Your task to perform on an android device: Go to wifi settings Image 0: 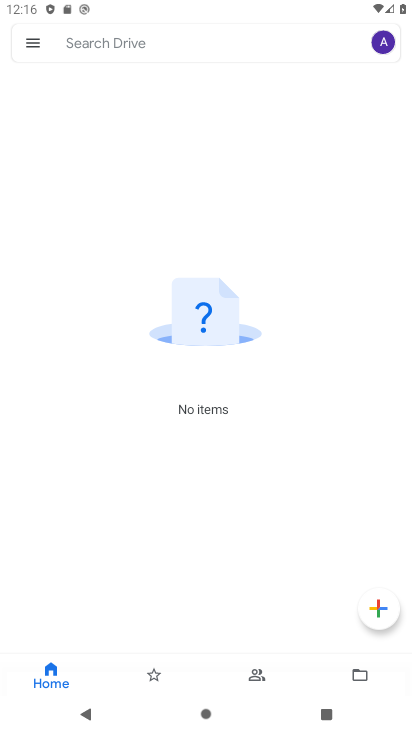
Step 0: press home button
Your task to perform on an android device: Go to wifi settings Image 1: 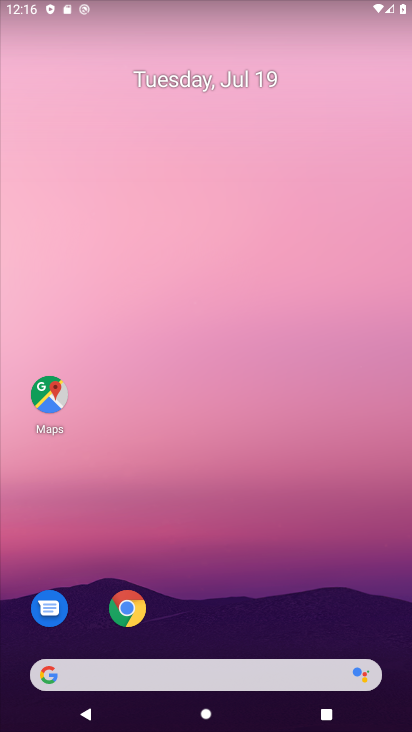
Step 1: drag from (218, 493) to (255, 270)
Your task to perform on an android device: Go to wifi settings Image 2: 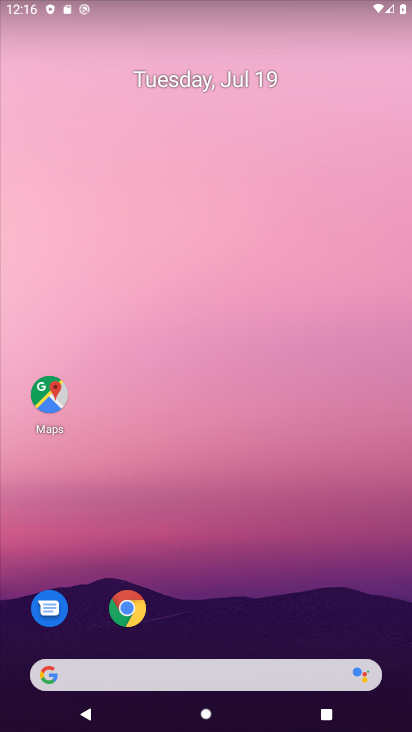
Step 2: drag from (205, 489) to (281, 143)
Your task to perform on an android device: Go to wifi settings Image 3: 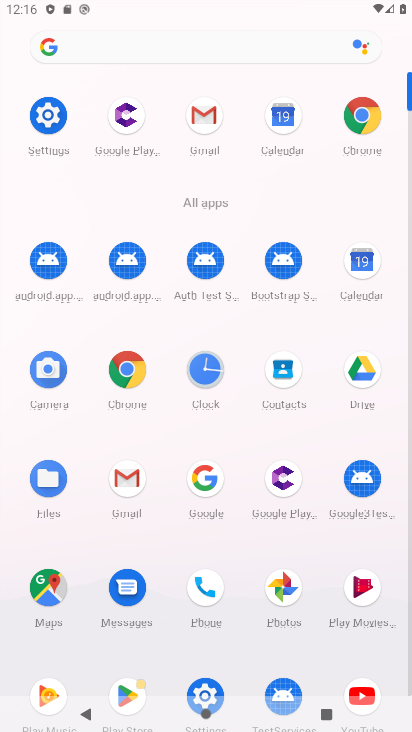
Step 3: click (202, 690)
Your task to perform on an android device: Go to wifi settings Image 4: 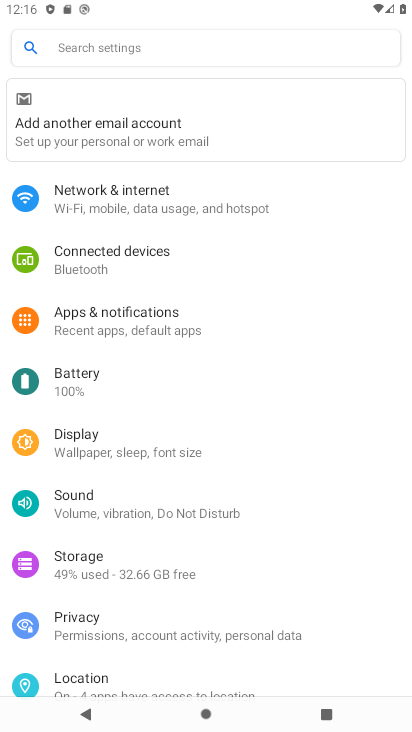
Step 4: click (125, 193)
Your task to perform on an android device: Go to wifi settings Image 5: 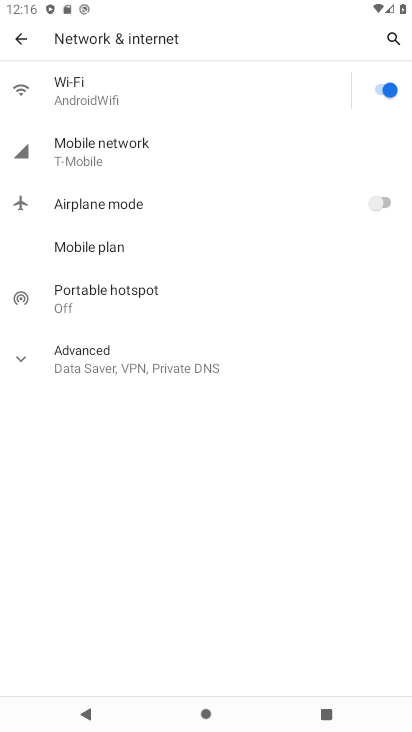
Step 5: task complete